Your task to perform on an android device: change the upload size in google photos Image 0: 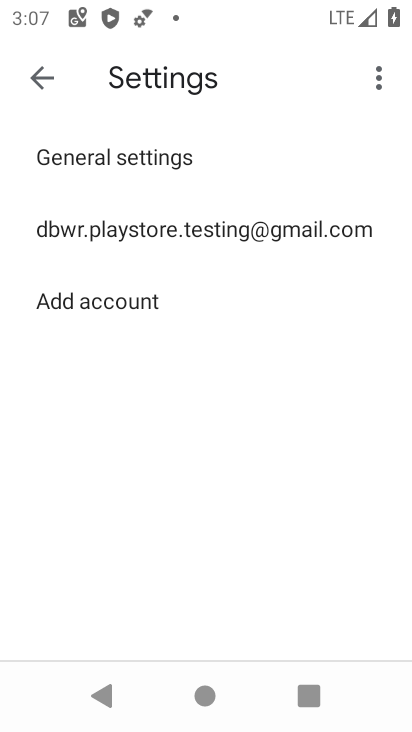
Step 0: press home button
Your task to perform on an android device: change the upload size in google photos Image 1: 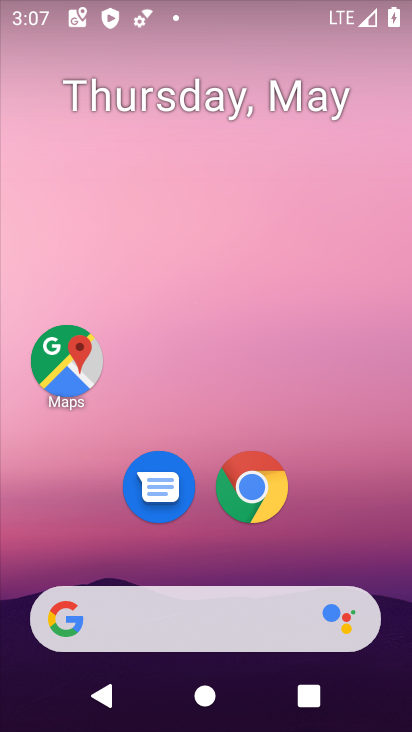
Step 1: drag from (198, 635) to (265, 167)
Your task to perform on an android device: change the upload size in google photos Image 2: 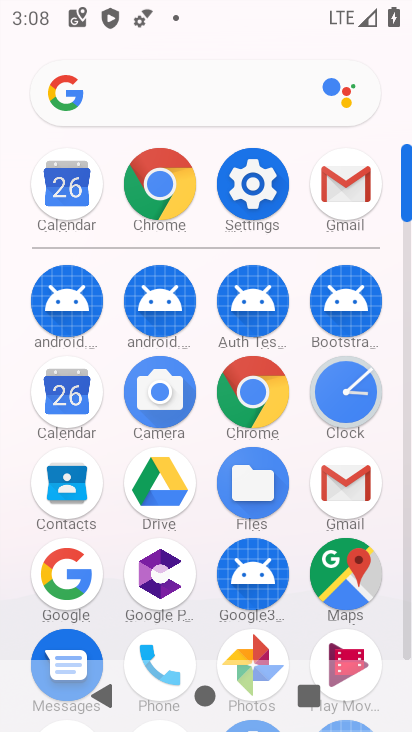
Step 2: drag from (259, 451) to (261, 271)
Your task to perform on an android device: change the upload size in google photos Image 3: 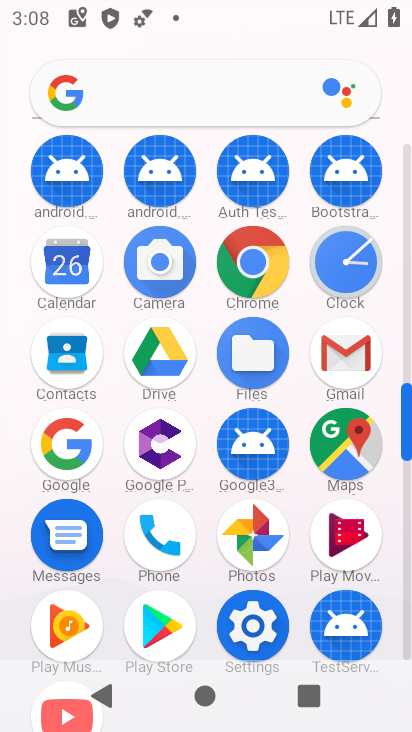
Step 3: click (269, 532)
Your task to perform on an android device: change the upload size in google photos Image 4: 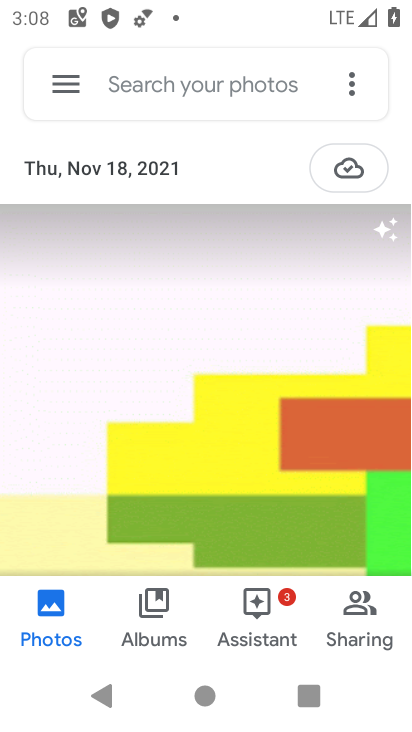
Step 4: click (55, 92)
Your task to perform on an android device: change the upload size in google photos Image 5: 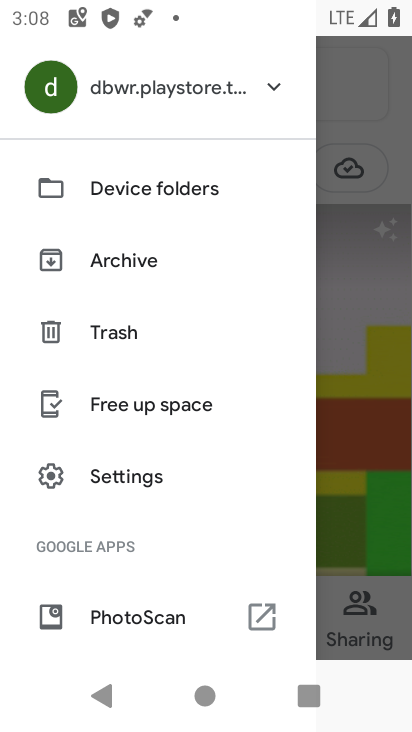
Step 5: drag from (161, 499) to (173, 191)
Your task to perform on an android device: change the upload size in google photos Image 6: 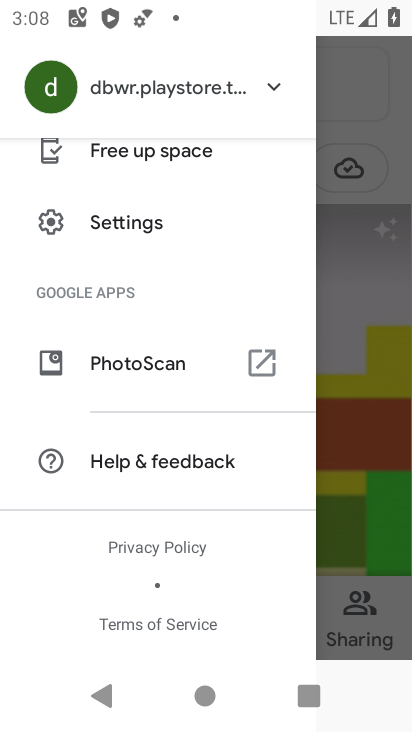
Step 6: click (126, 231)
Your task to perform on an android device: change the upload size in google photos Image 7: 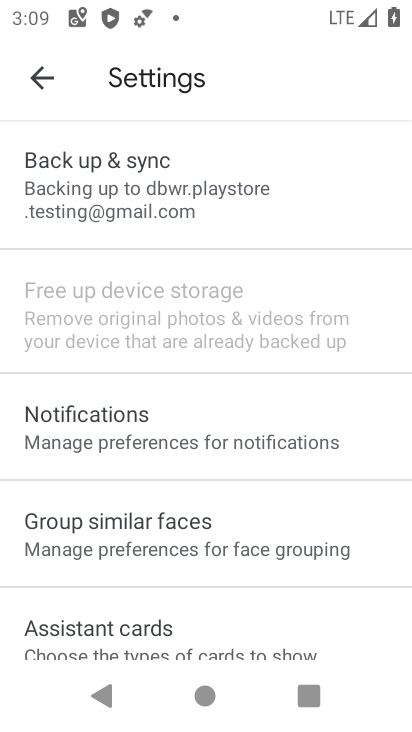
Step 7: click (165, 199)
Your task to perform on an android device: change the upload size in google photos Image 8: 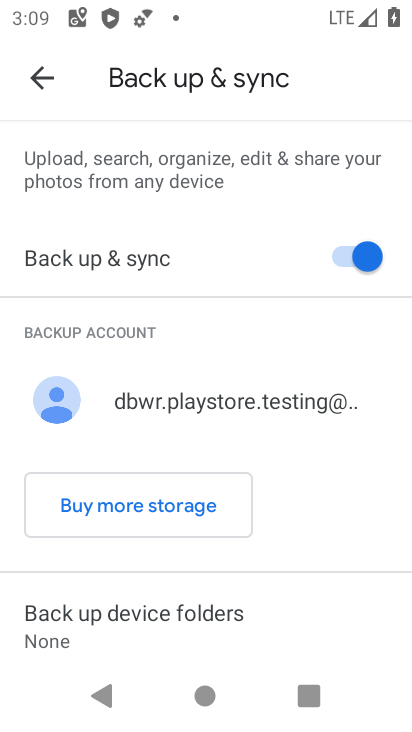
Step 8: drag from (292, 483) to (361, 120)
Your task to perform on an android device: change the upload size in google photos Image 9: 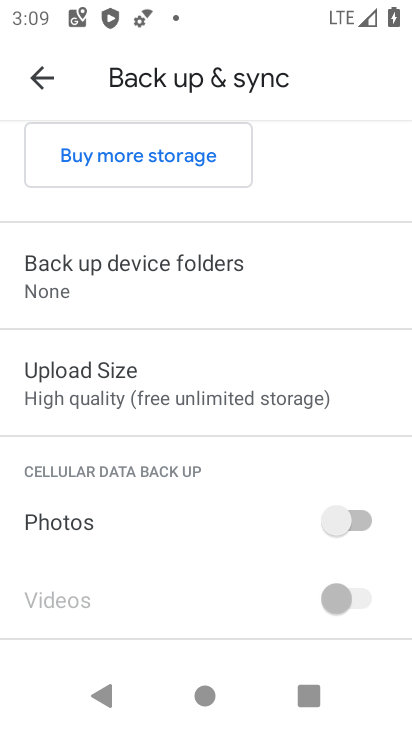
Step 9: click (235, 394)
Your task to perform on an android device: change the upload size in google photos Image 10: 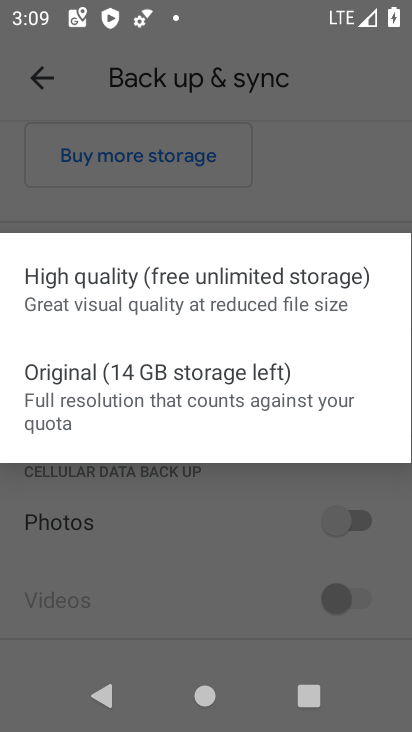
Step 10: click (141, 395)
Your task to perform on an android device: change the upload size in google photos Image 11: 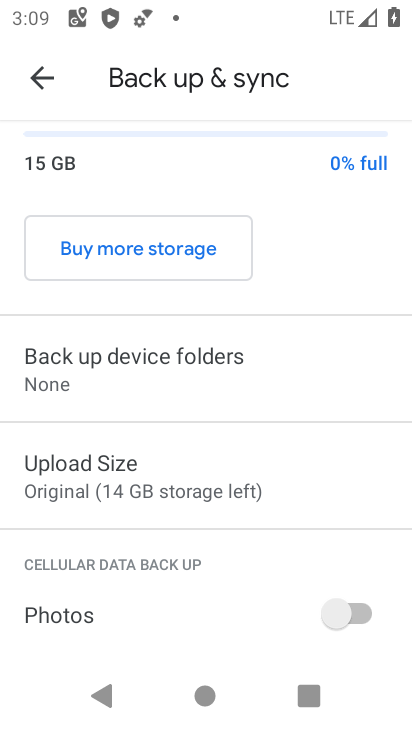
Step 11: task complete